Your task to perform on an android device: When is my next appointment? Image 0: 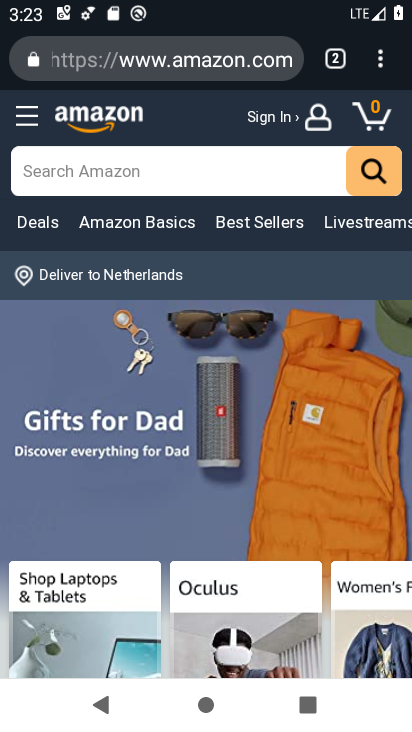
Step 0: press home button
Your task to perform on an android device: When is my next appointment? Image 1: 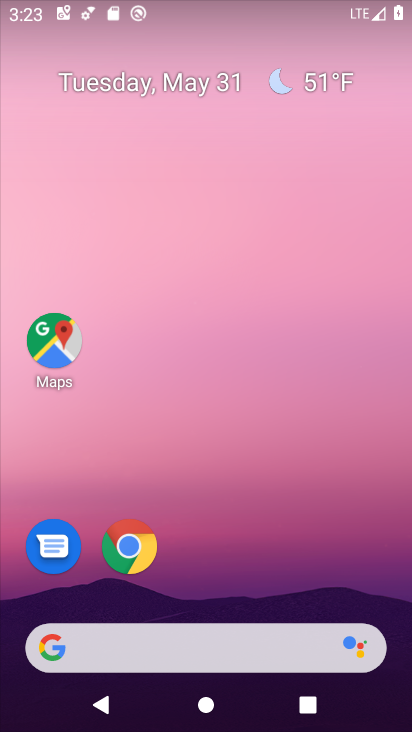
Step 1: click (175, 93)
Your task to perform on an android device: When is my next appointment? Image 2: 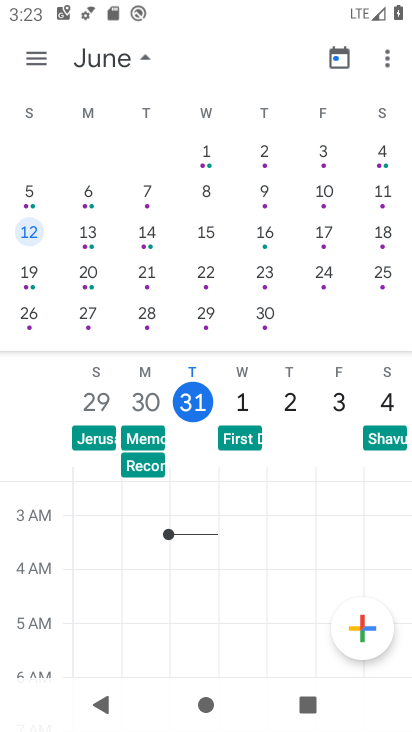
Step 2: task complete